Your task to perform on an android device: What's the weather going to be this weekend? Image 0: 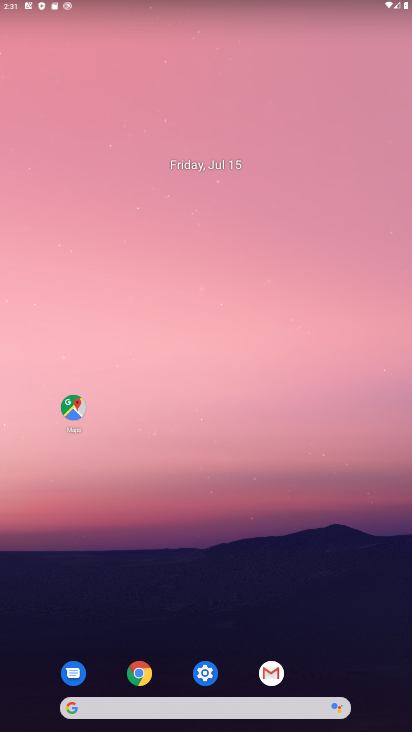
Step 0: press home button
Your task to perform on an android device: What's the weather going to be this weekend? Image 1: 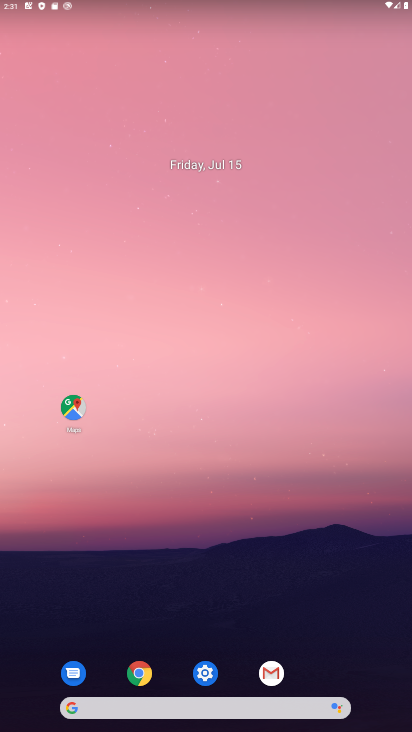
Step 1: click (174, 706)
Your task to perform on an android device: What's the weather going to be this weekend? Image 2: 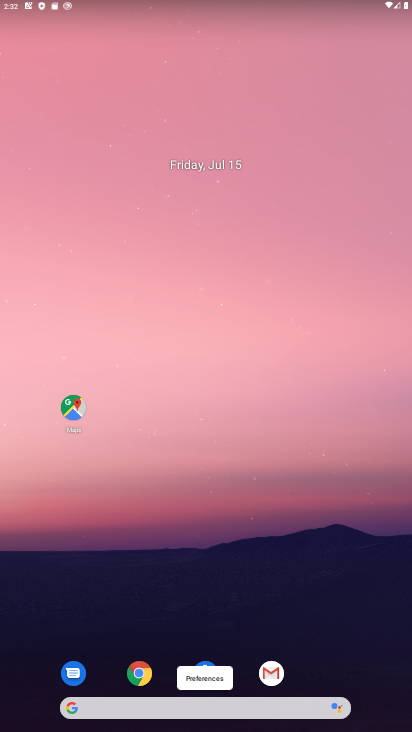
Step 2: click (135, 708)
Your task to perform on an android device: What's the weather going to be this weekend? Image 3: 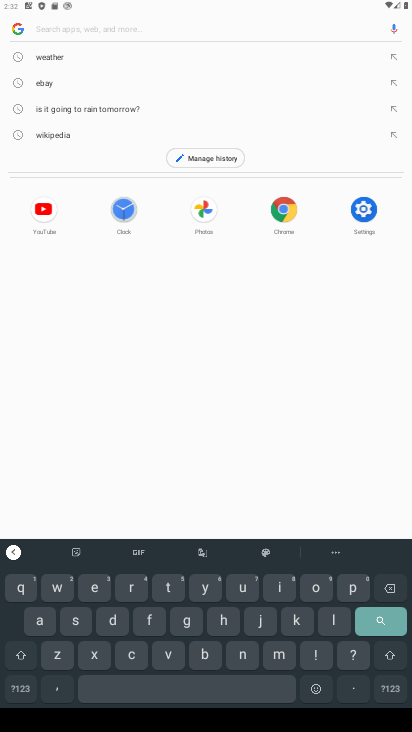
Step 3: click (70, 54)
Your task to perform on an android device: What's the weather going to be this weekend? Image 4: 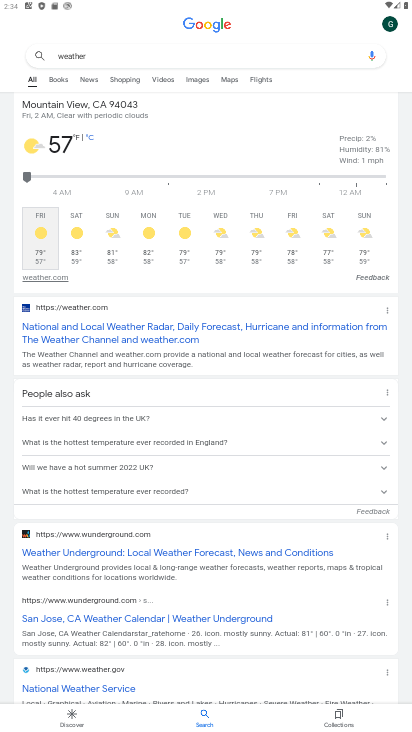
Step 4: task complete